Your task to perform on an android device: turn on sleep mode Image 0: 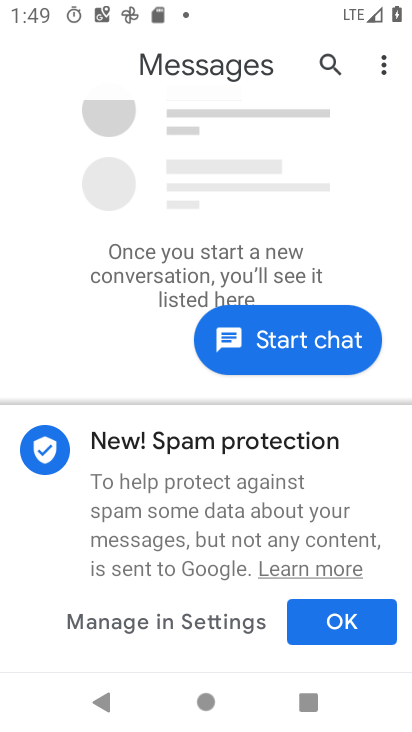
Step 0: press home button
Your task to perform on an android device: turn on sleep mode Image 1: 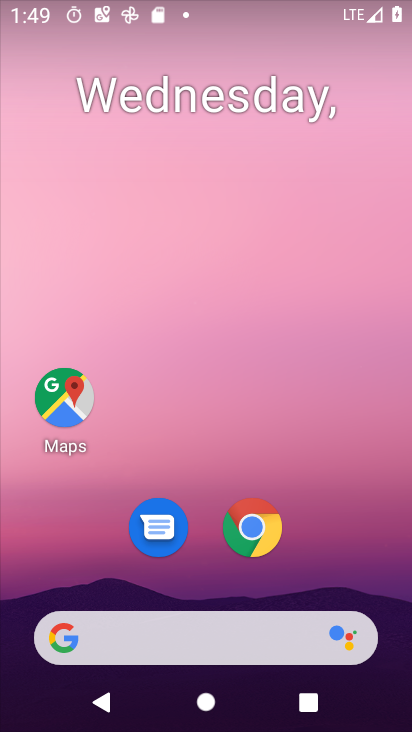
Step 1: drag from (322, 616) to (327, 10)
Your task to perform on an android device: turn on sleep mode Image 2: 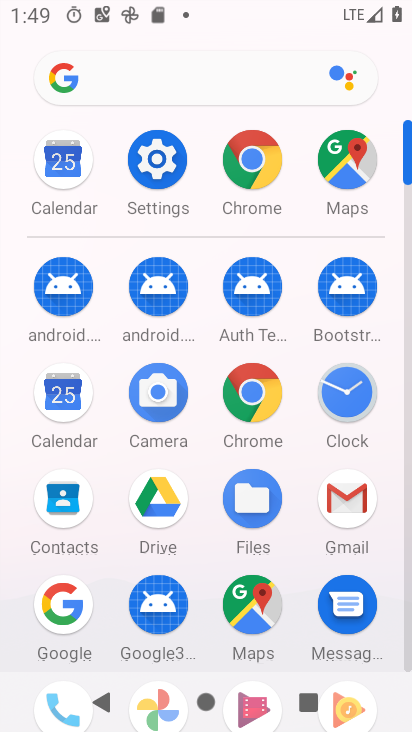
Step 2: click (165, 179)
Your task to perform on an android device: turn on sleep mode Image 3: 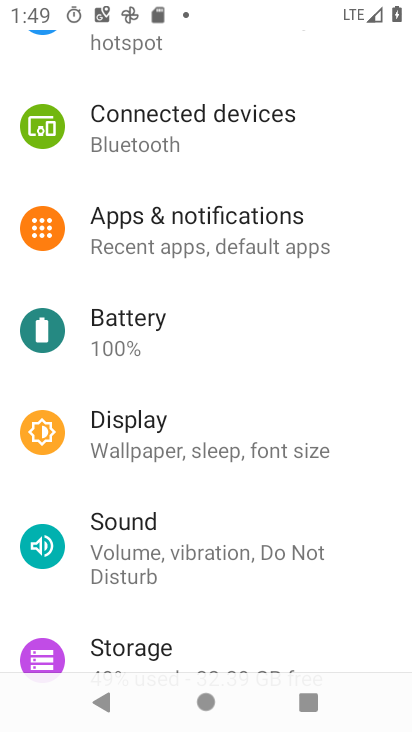
Step 3: click (220, 429)
Your task to perform on an android device: turn on sleep mode Image 4: 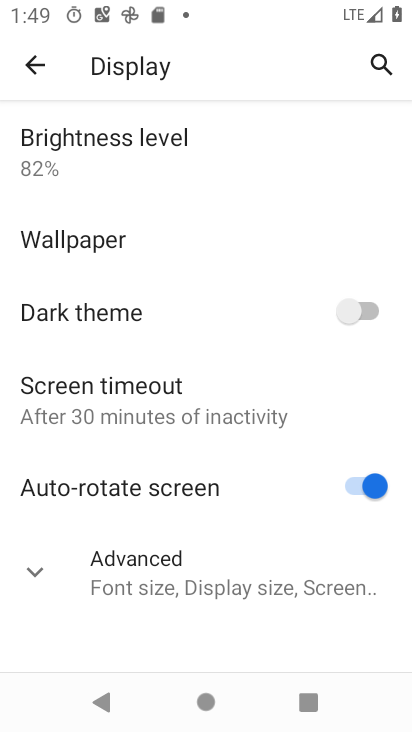
Step 4: task complete